Your task to perform on an android device: uninstall "Messenger Lite" Image 0: 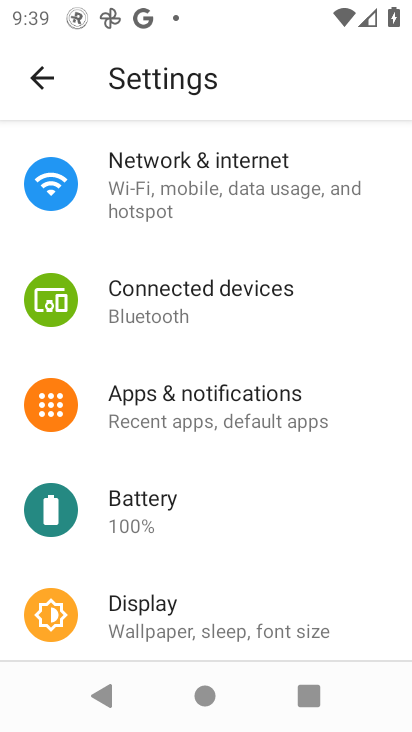
Step 0: click (38, 72)
Your task to perform on an android device: uninstall "Messenger Lite" Image 1: 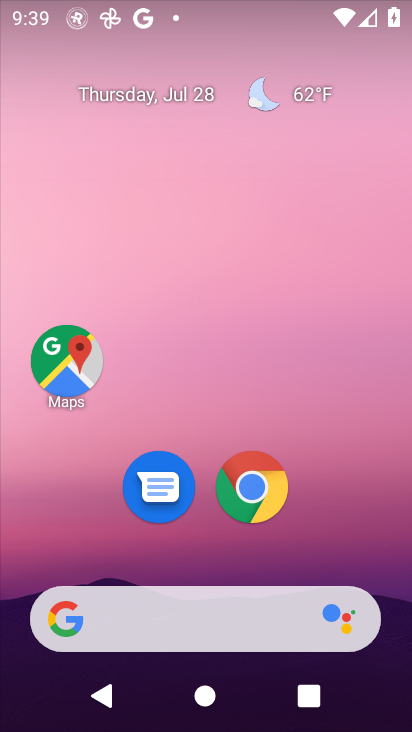
Step 1: drag from (300, 600) to (241, 209)
Your task to perform on an android device: uninstall "Messenger Lite" Image 2: 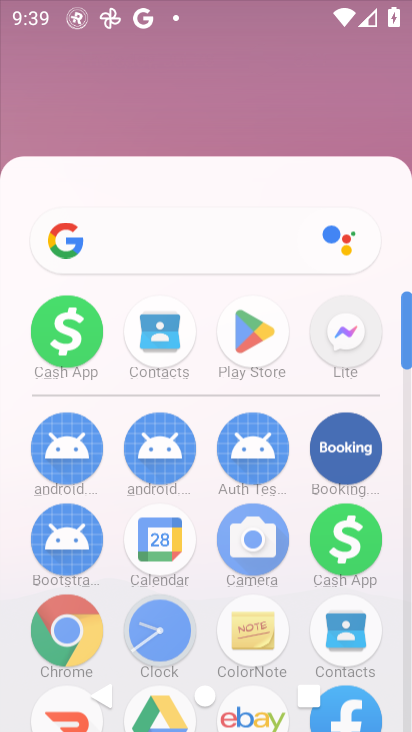
Step 2: drag from (204, 555) to (196, 255)
Your task to perform on an android device: uninstall "Messenger Lite" Image 3: 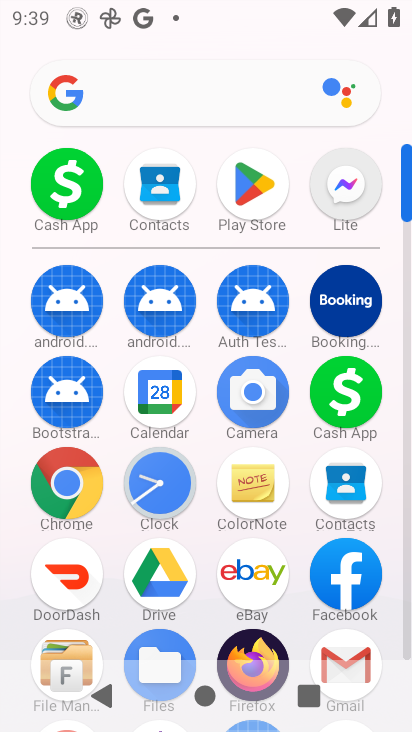
Step 3: drag from (165, 494) to (165, 248)
Your task to perform on an android device: uninstall "Messenger Lite" Image 4: 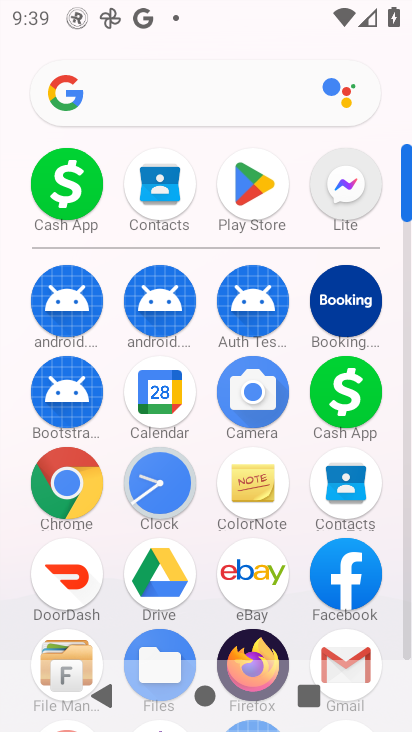
Step 4: click (246, 197)
Your task to perform on an android device: uninstall "Messenger Lite" Image 5: 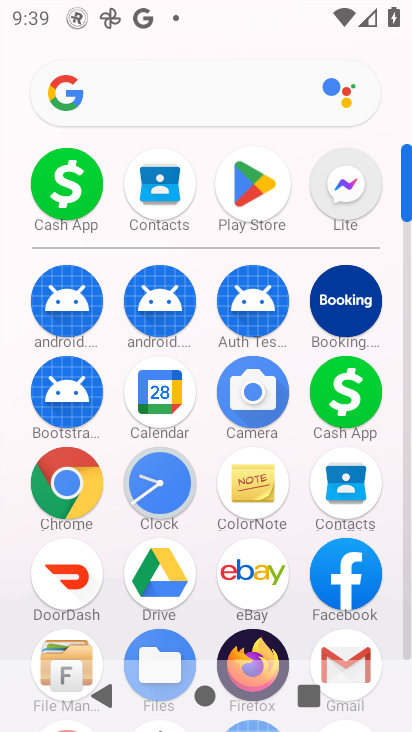
Step 5: click (251, 194)
Your task to perform on an android device: uninstall "Messenger Lite" Image 6: 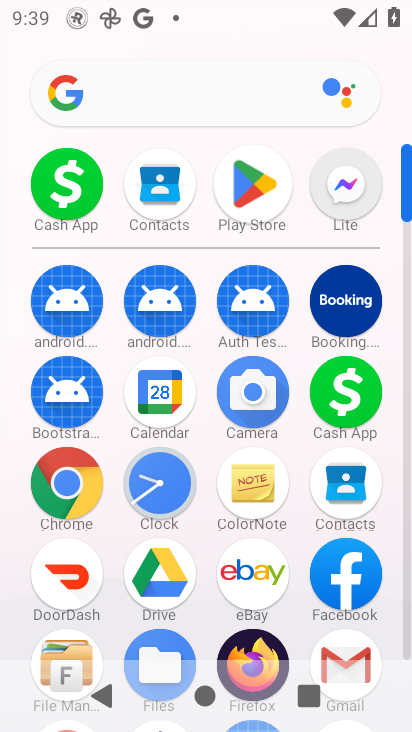
Step 6: click (251, 194)
Your task to perform on an android device: uninstall "Messenger Lite" Image 7: 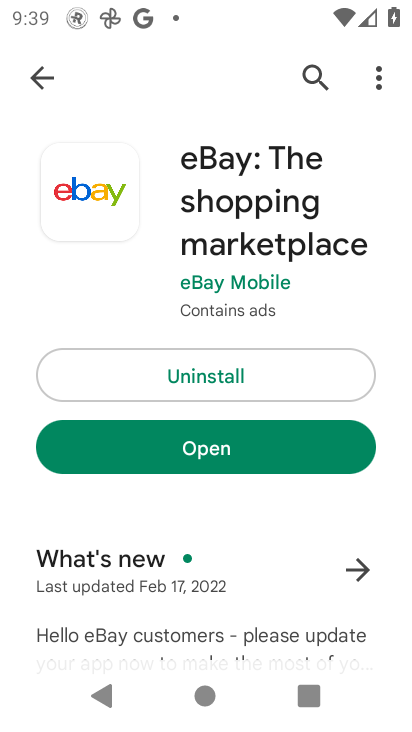
Step 7: click (40, 60)
Your task to perform on an android device: uninstall "Messenger Lite" Image 8: 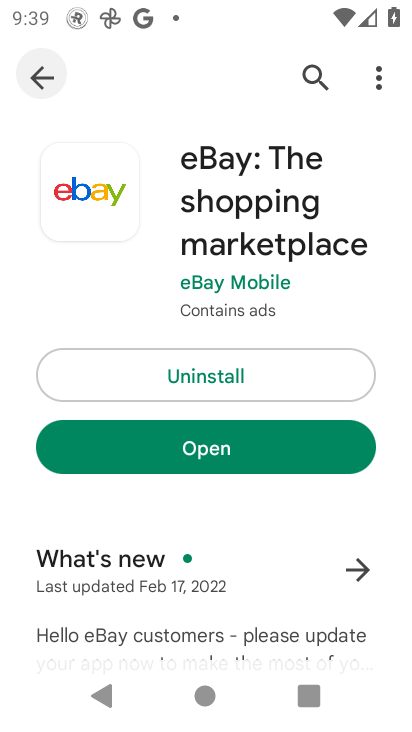
Step 8: click (37, 58)
Your task to perform on an android device: uninstall "Messenger Lite" Image 9: 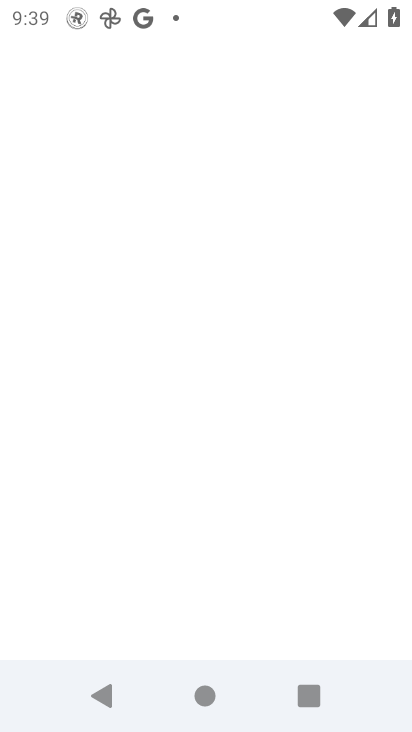
Step 9: click (37, 57)
Your task to perform on an android device: uninstall "Messenger Lite" Image 10: 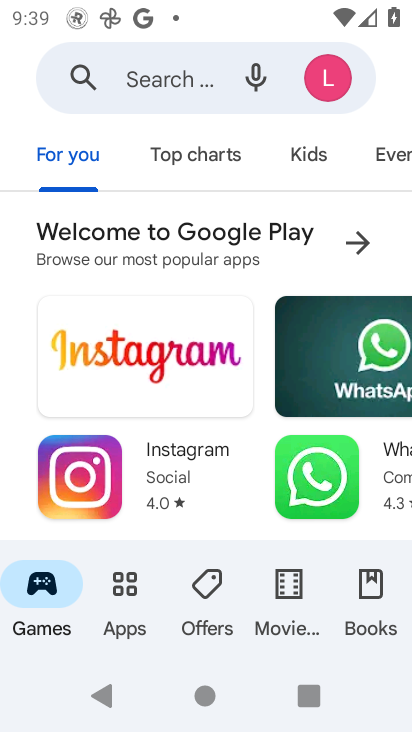
Step 10: click (162, 66)
Your task to perform on an android device: uninstall "Messenger Lite" Image 11: 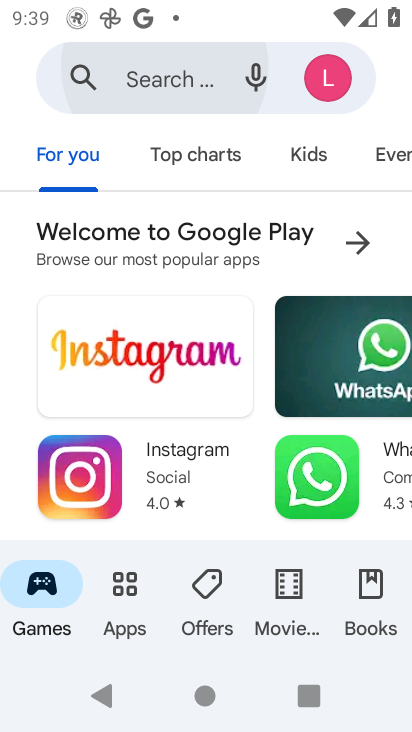
Step 11: click (157, 66)
Your task to perform on an android device: uninstall "Messenger Lite" Image 12: 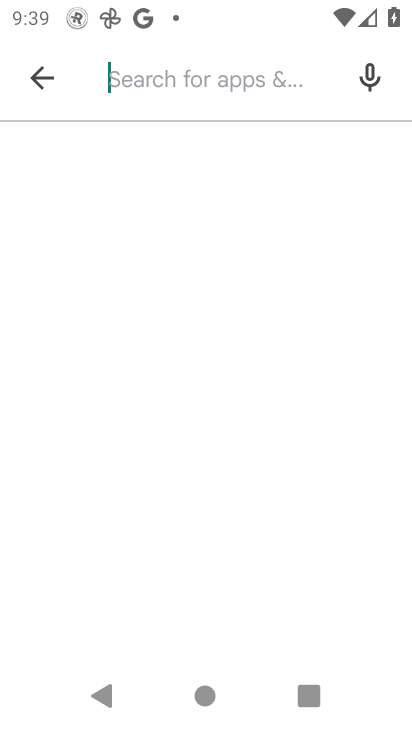
Step 12: click (157, 66)
Your task to perform on an android device: uninstall "Messenger Lite" Image 13: 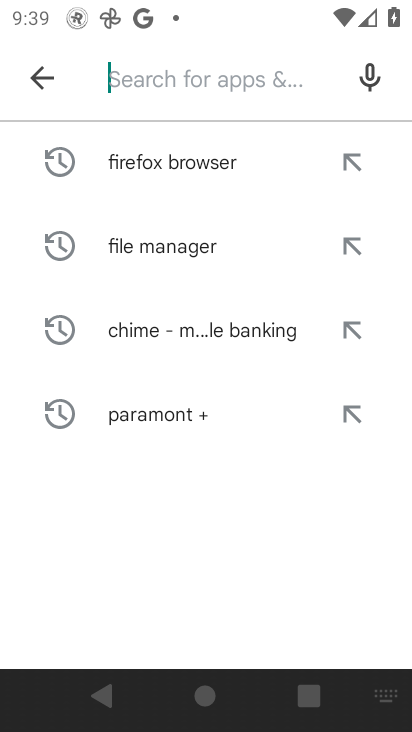
Step 13: click (157, 66)
Your task to perform on an android device: uninstall "Messenger Lite" Image 14: 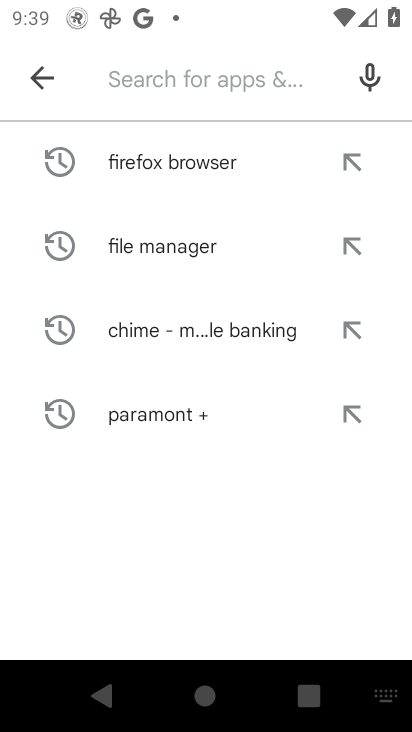
Step 14: type "Messenger Lite"
Your task to perform on an android device: uninstall "Messenger Lite" Image 15: 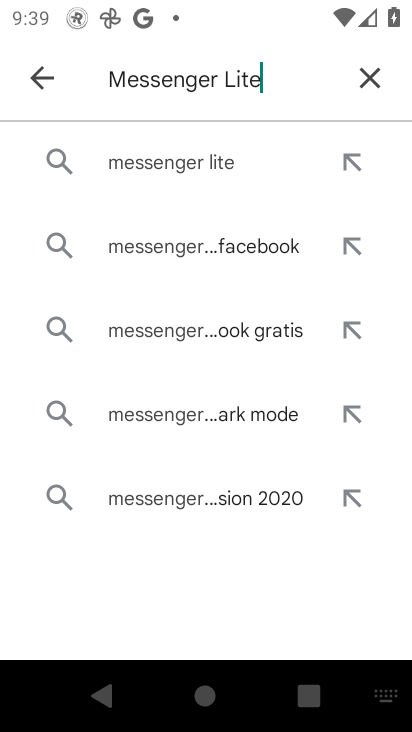
Step 15: click (168, 154)
Your task to perform on an android device: uninstall "Messenger Lite" Image 16: 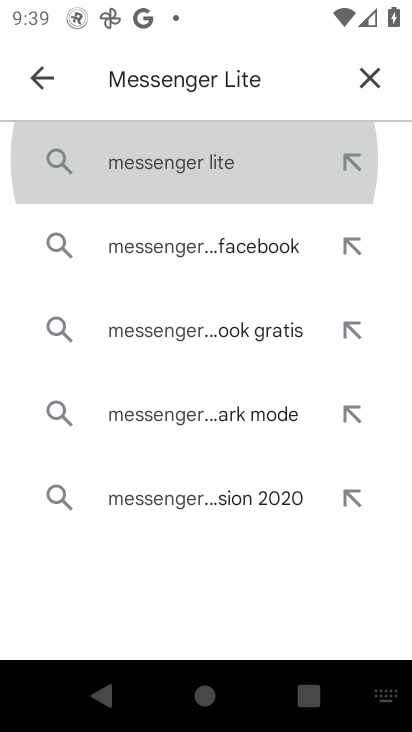
Step 16: click (169, 154)
Your task to perform on an android device: uninstall "Messenger Lite" Image 17: 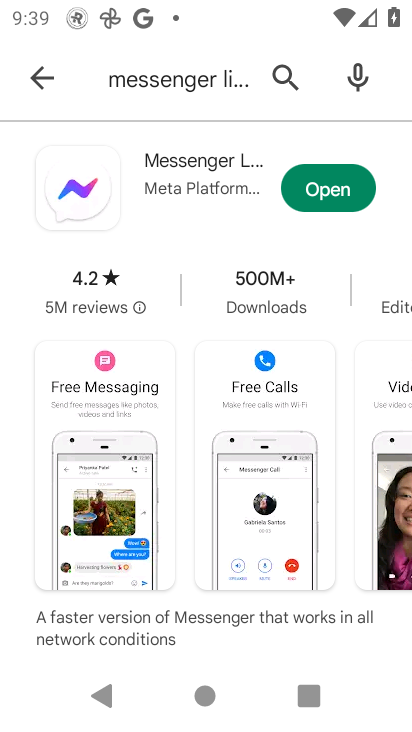
Step 17: task complete